Your task to perform on an android device: turn off notifications in google photos Image 0: 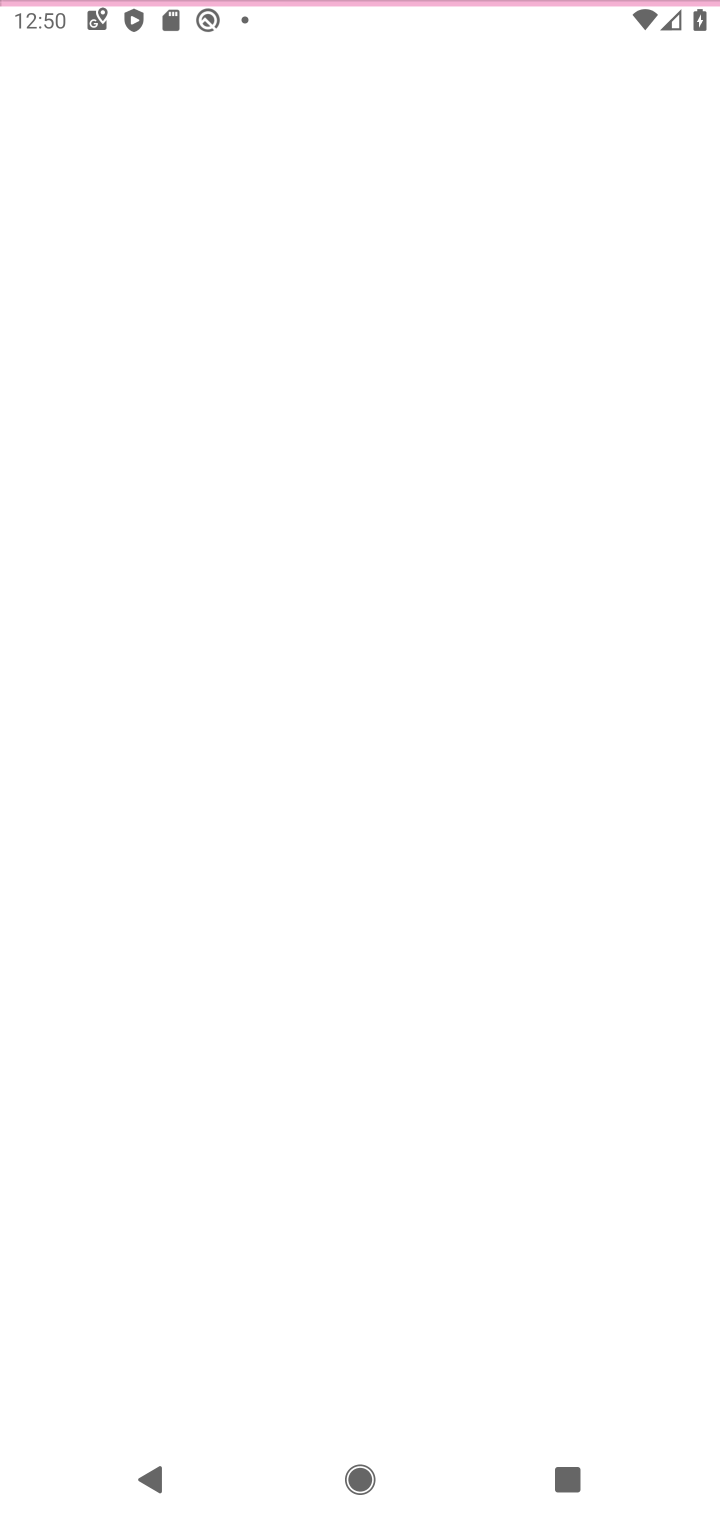
Step 0: press home button
Your task to perform on an android device: turn off notifications in google photos Image 1: 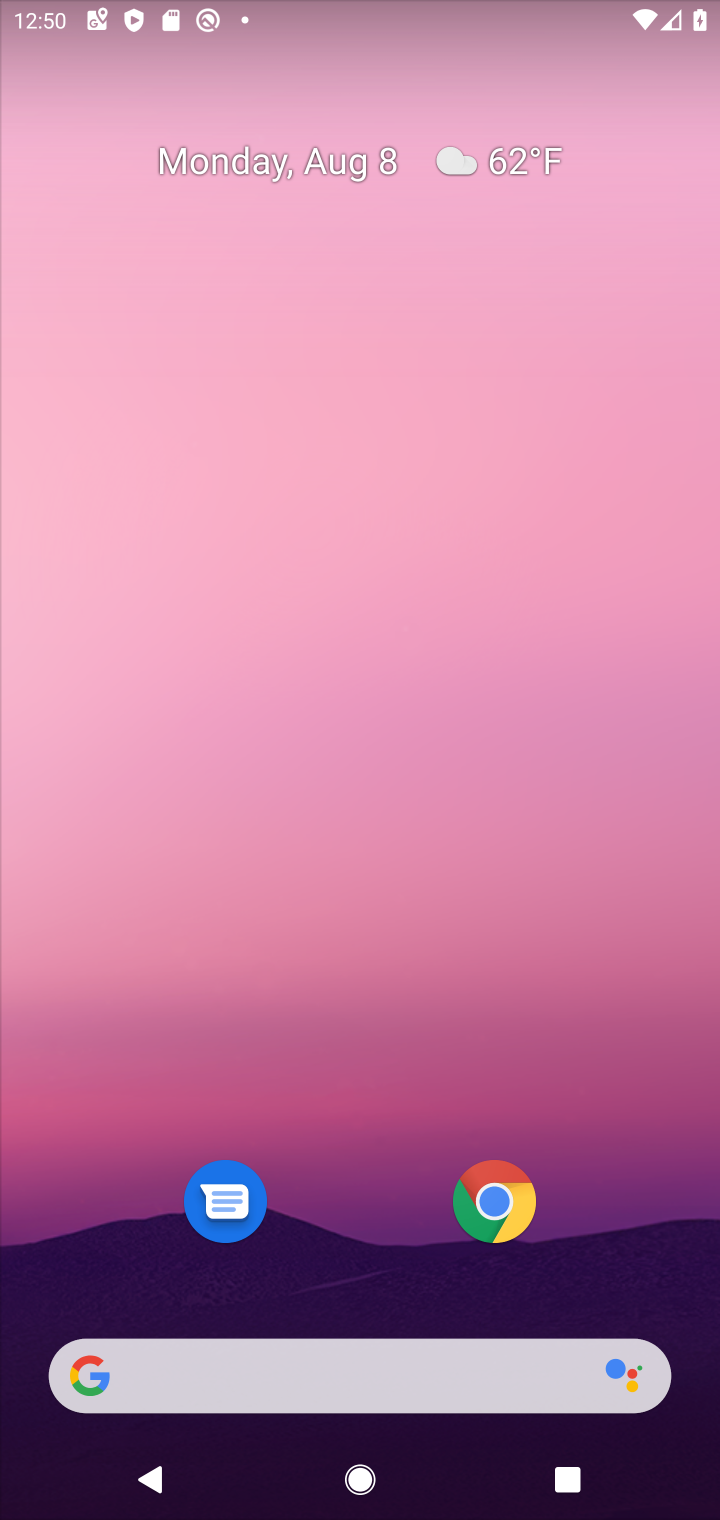
Step 1: drag from (481, 1439) to (625, 304)
Your task to perform on an android device: turn off notifications in google photos Image 2: 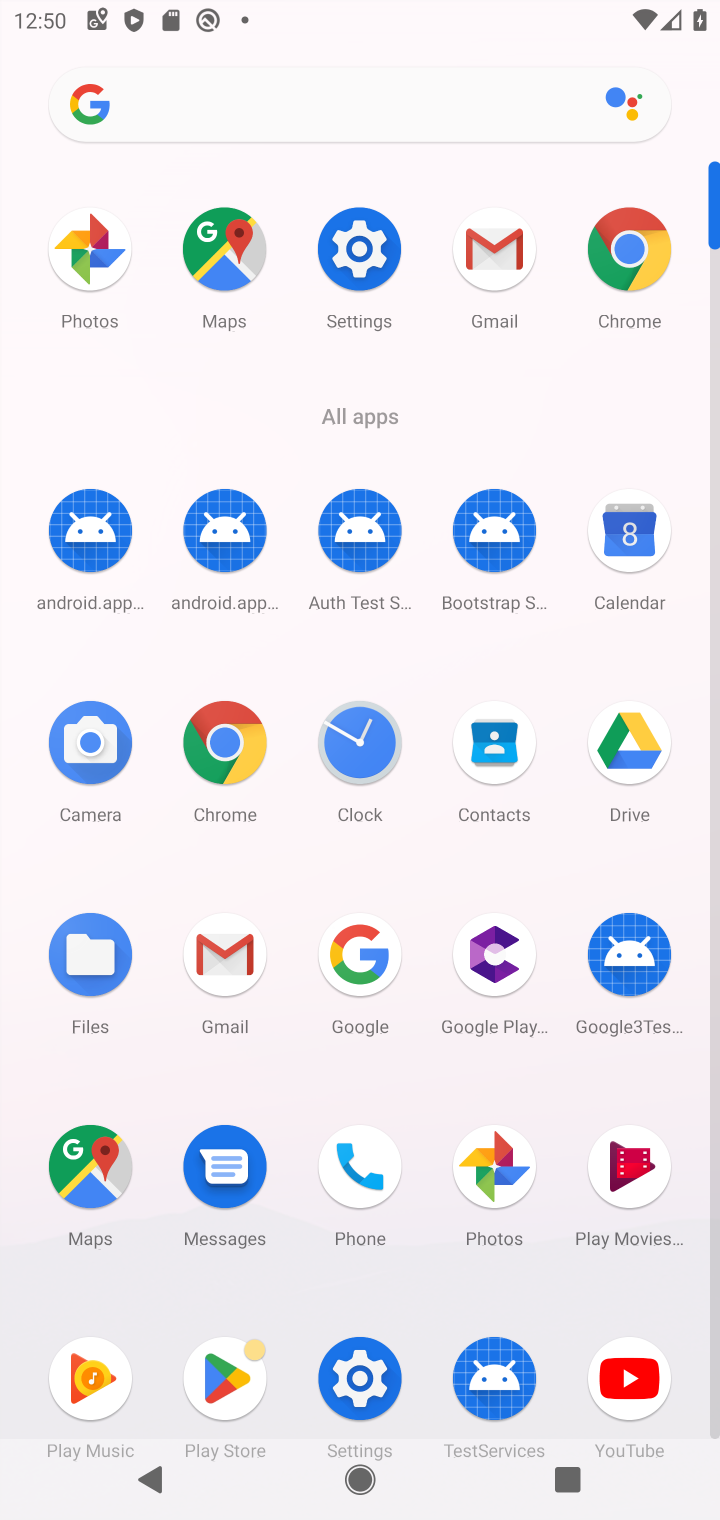
Step 2: click (100, 298)
Your task to perform on an android device: turn off notifications in google photos Image 3: 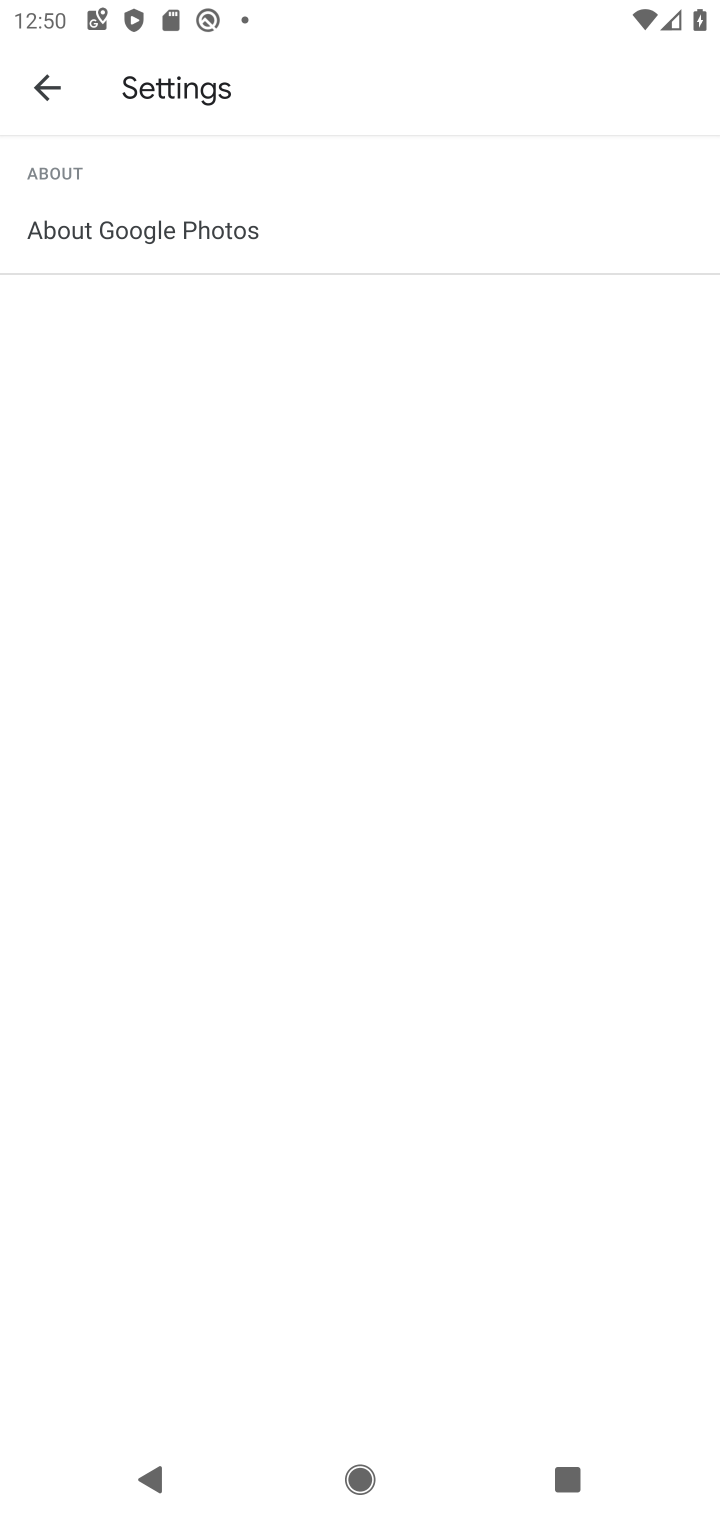
Step 3: click (38, 113)
Your task to perform on an android device: turn off notifications in google photos Image 4: 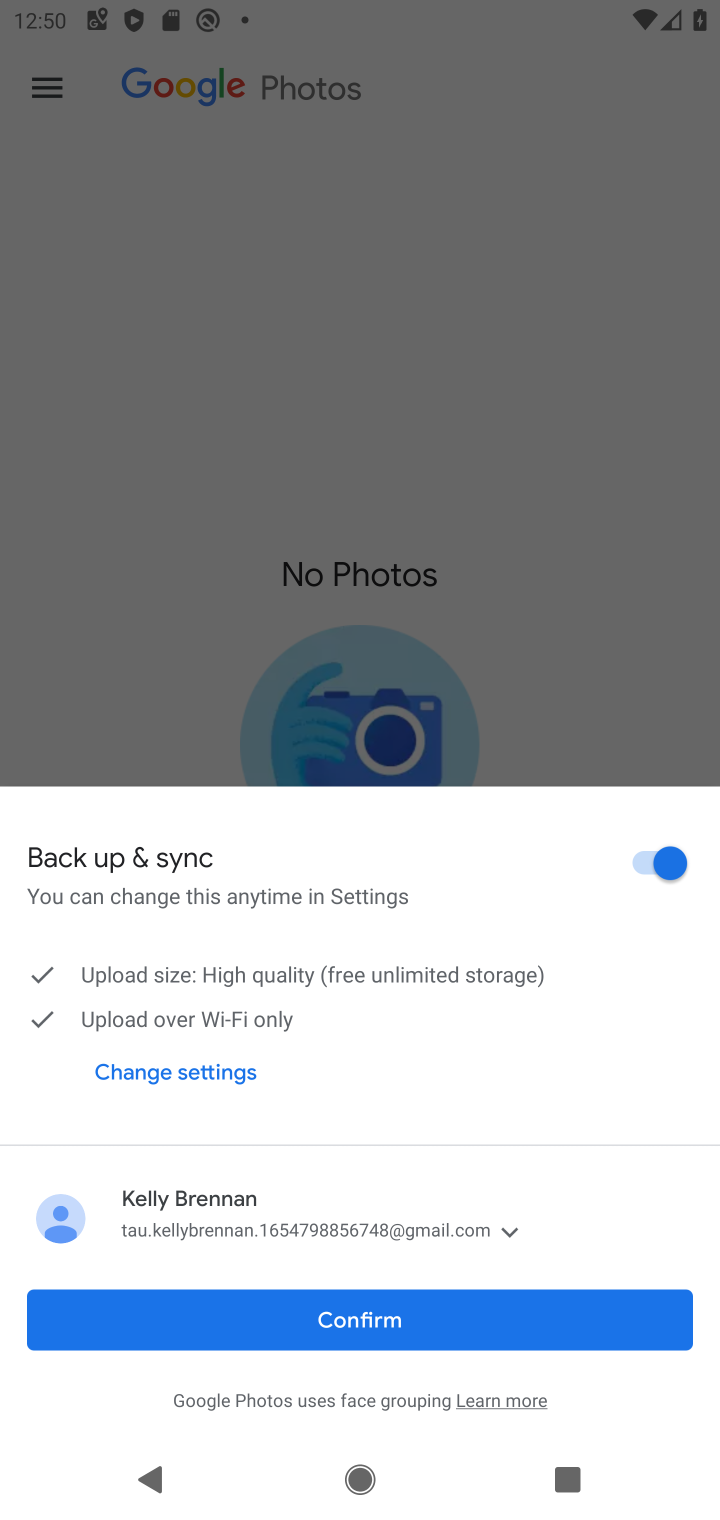
Step 4: click (368, 1331)
Your task to perform on an android device: turn off notifications in google photos Image 5: 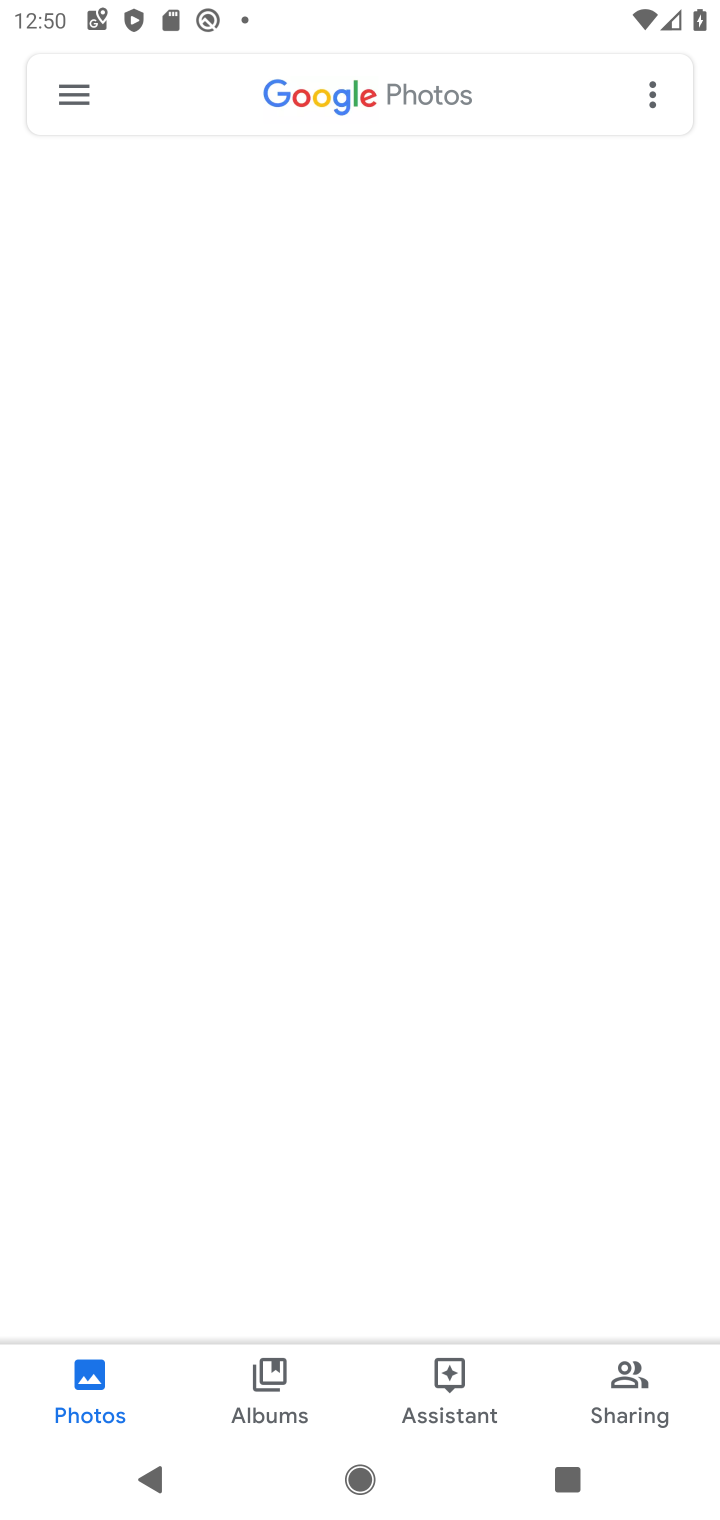
Step 5: click (82, 98)
Your task to perform on an android device: turn off notifications in google photos Image 6: 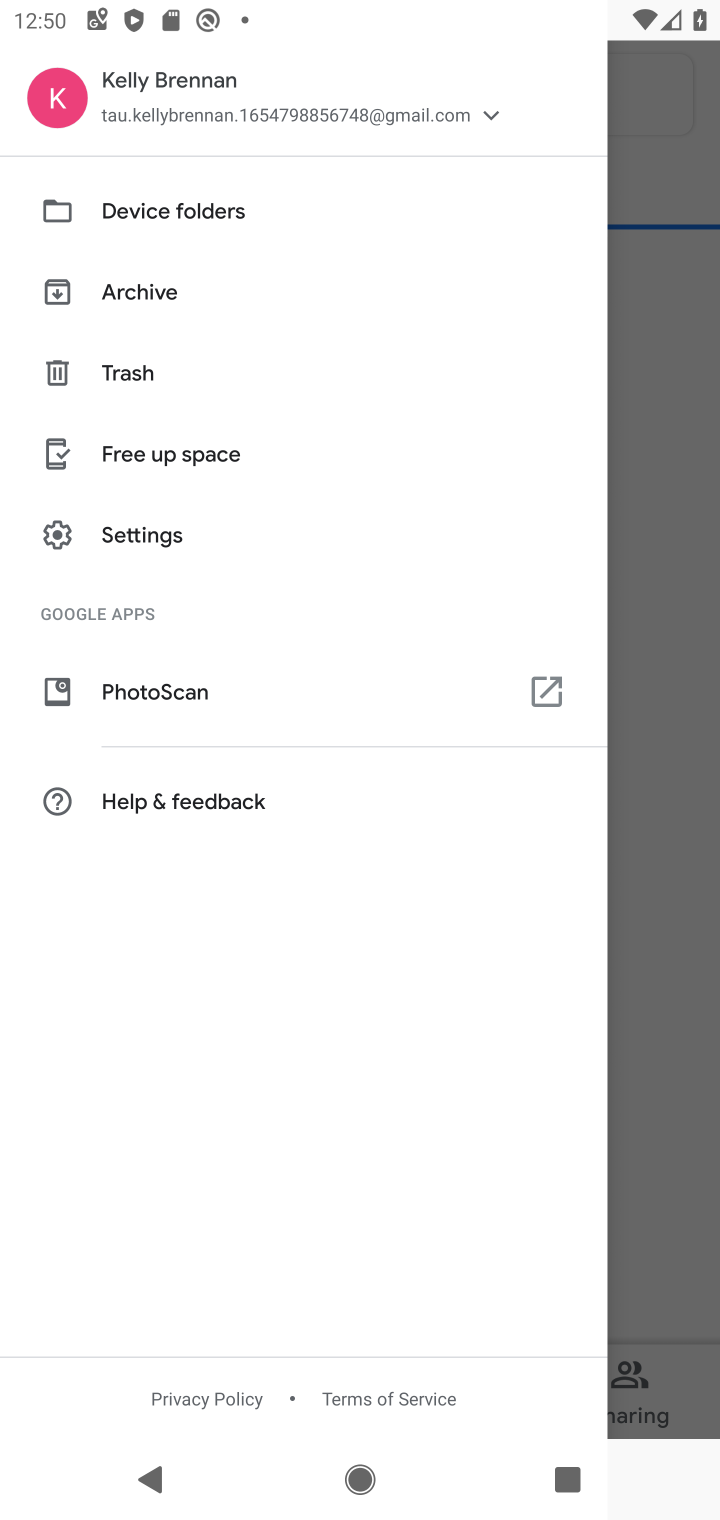
Step 6: click (162, 540)
Your task to perform on an android device: turn off notifications in google photos Image 7: 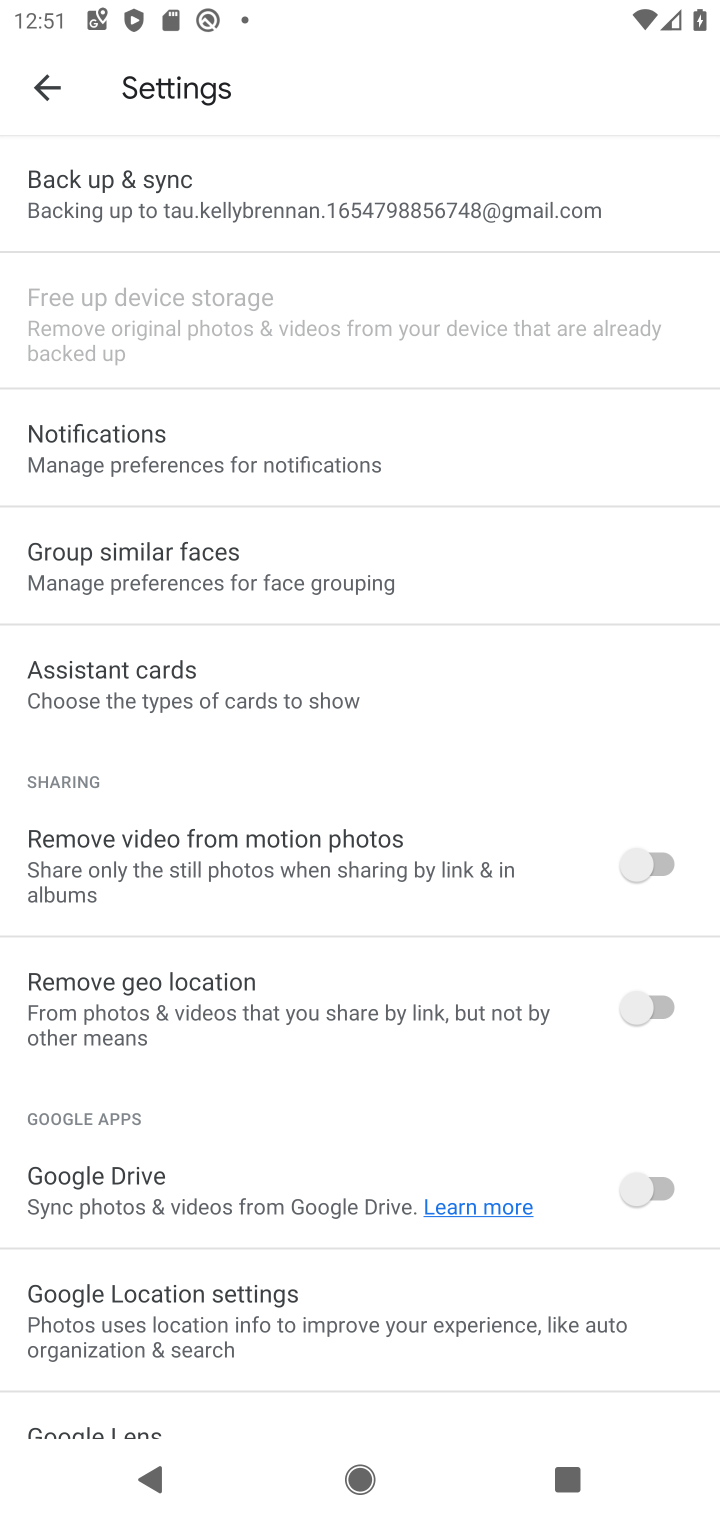
Step 7: click (196, 458)
Your task to perform on an android device: turn off notifications in google photos Image 8: 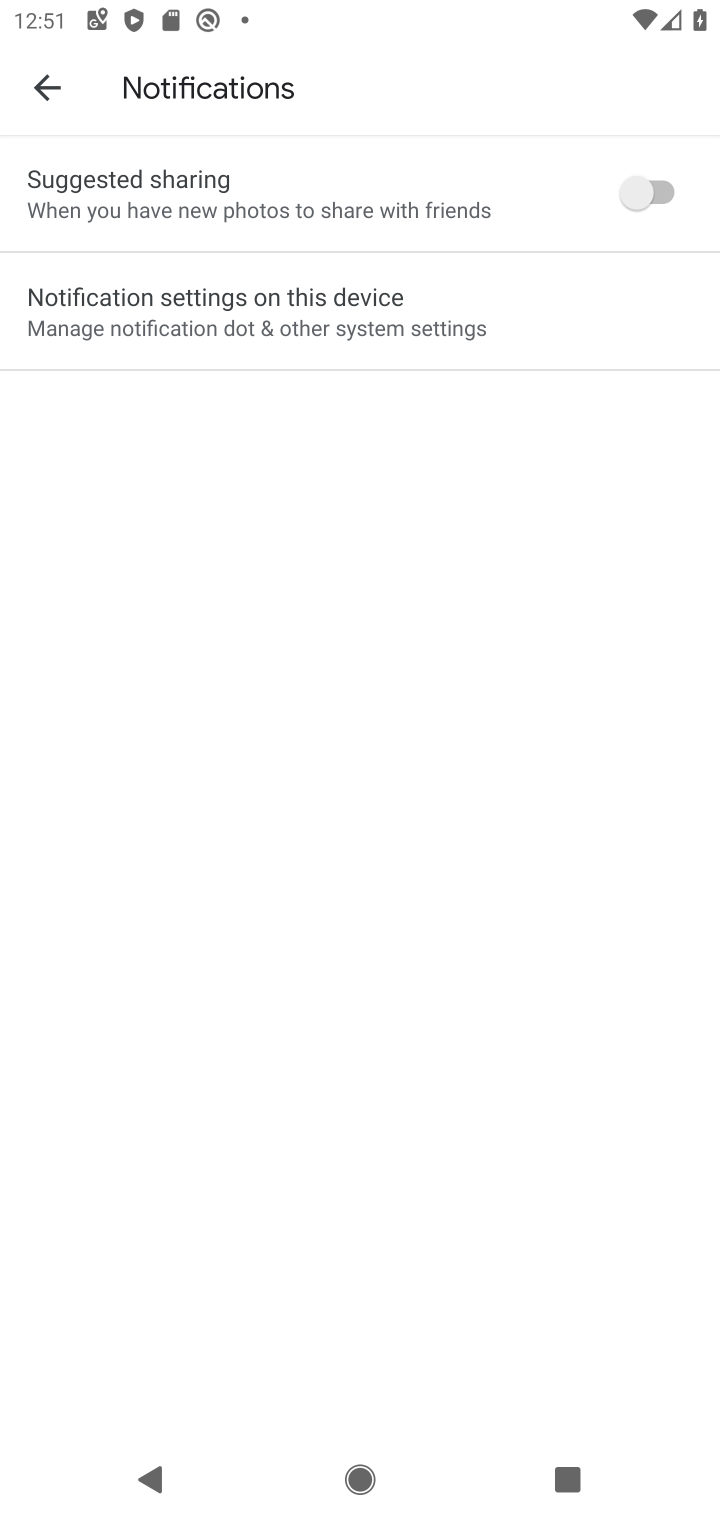
Step 8: click (260, 314)
Your task to perform on an android device: turn off notifications in google photos Image 9: 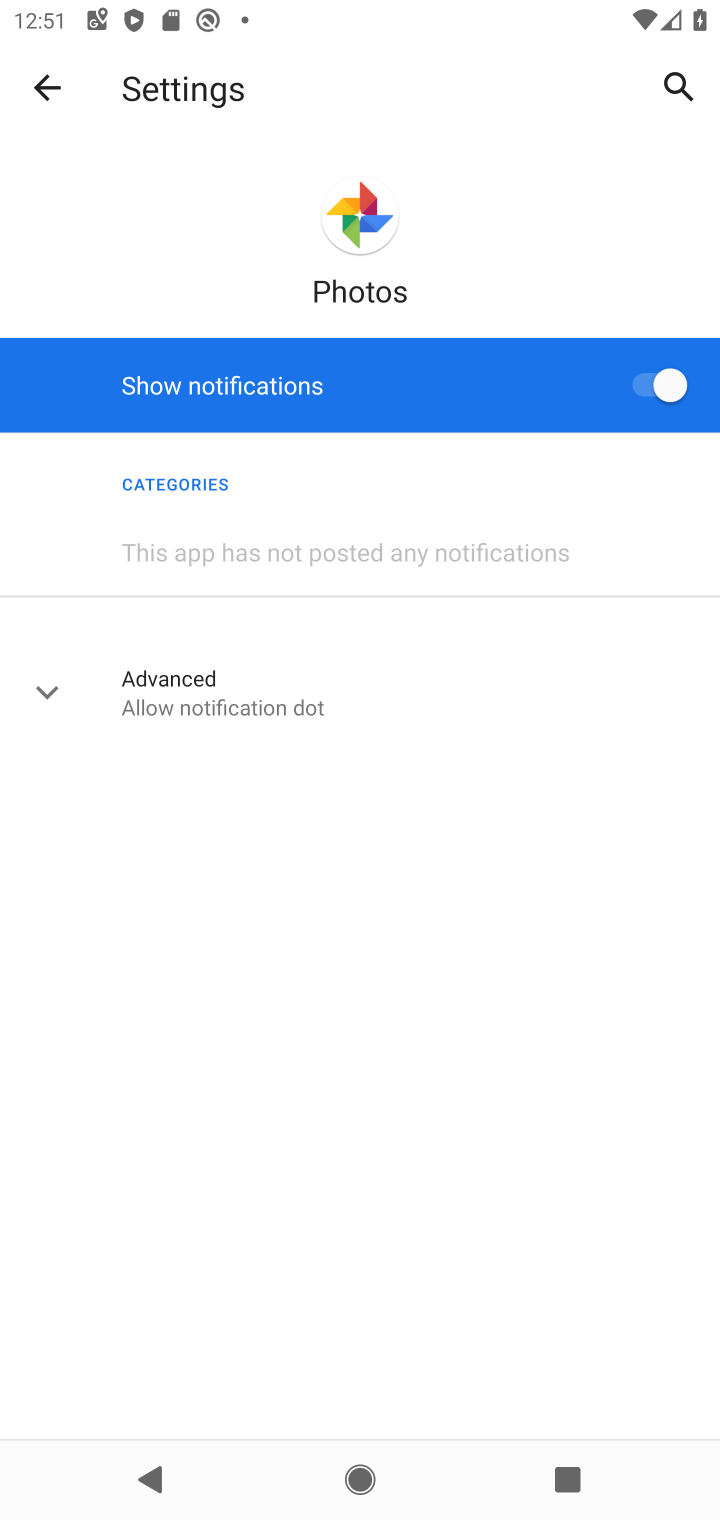
Step 9: click (658, 406)
Your task to perform on an android device: turn off notifications in google photos Image 10: 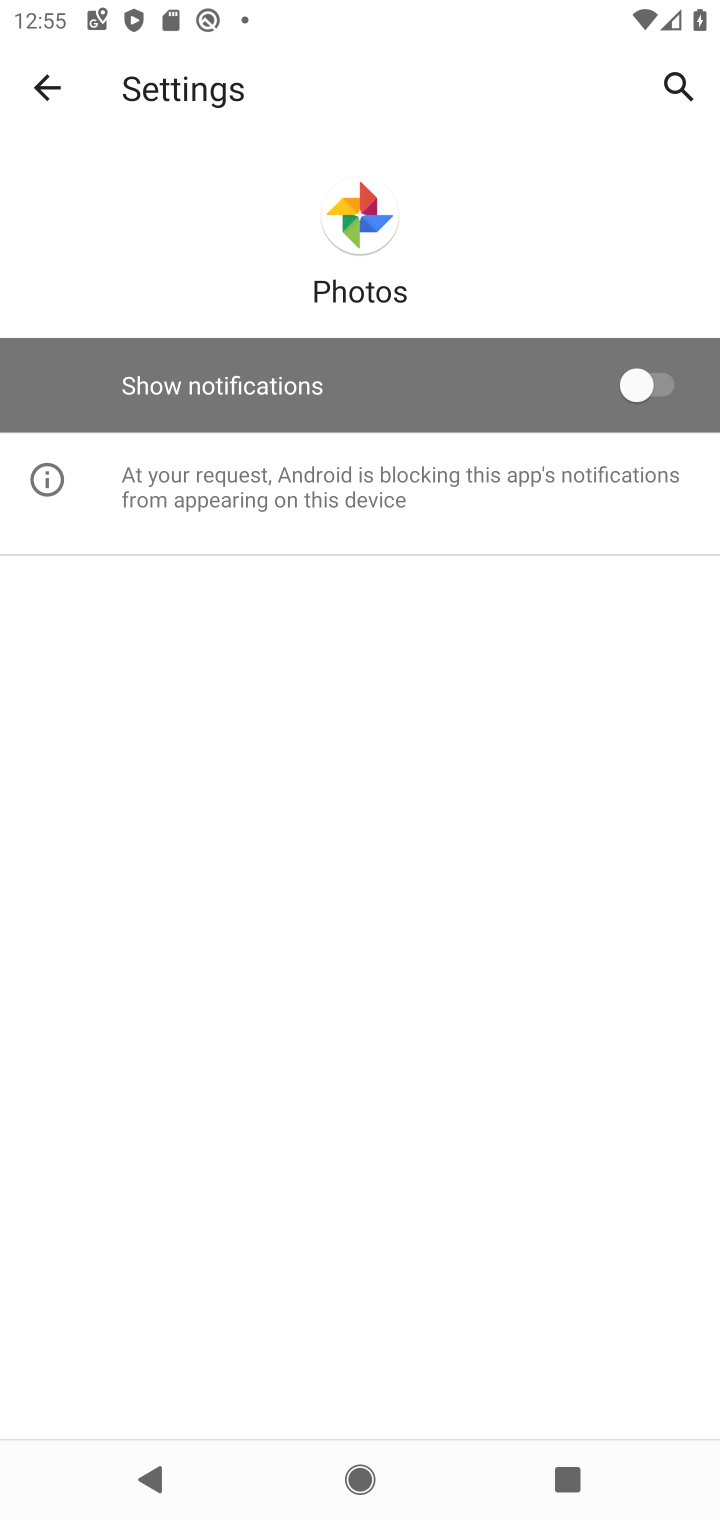
Step 10: task complete